Your task to perform on an android device: set an alarm Image 0: 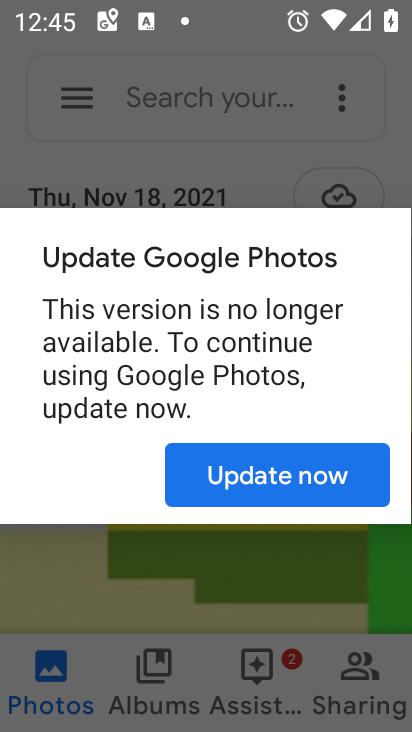
Step 0: press home button
Your task to perform on an android device: set an alarm Image 1: 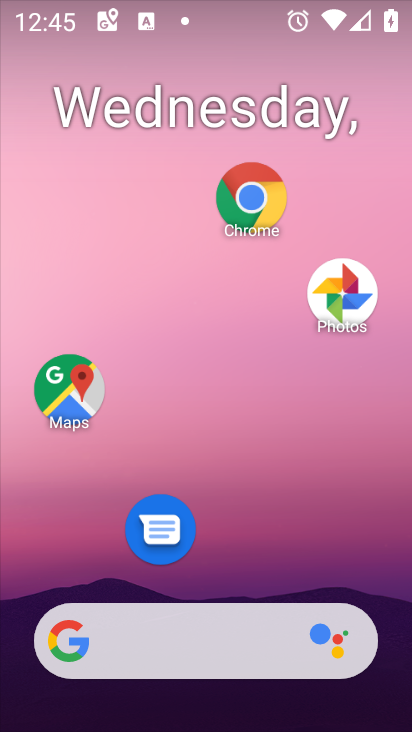
Step 1: drag from (239, 657) to (298, 4)
Your task to perform on an android device: set an alarm Image 2: 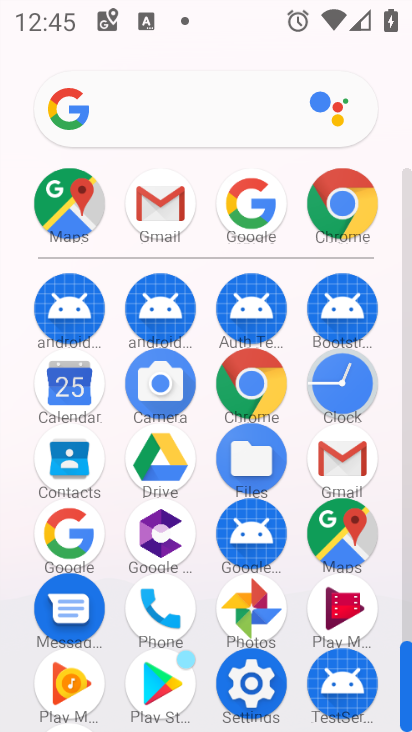
Step 2: click (361, 399)
Your task to perform on an android device: set an alarm Image 3: 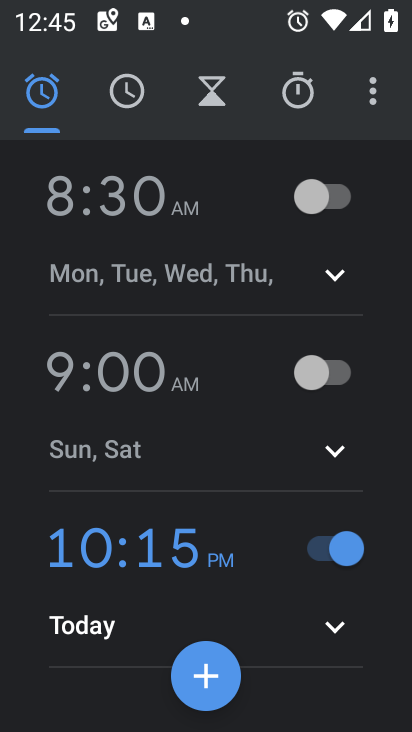
Step 3: click (199, 670)
Your task to perform on an android device: set an alarm Image 4: 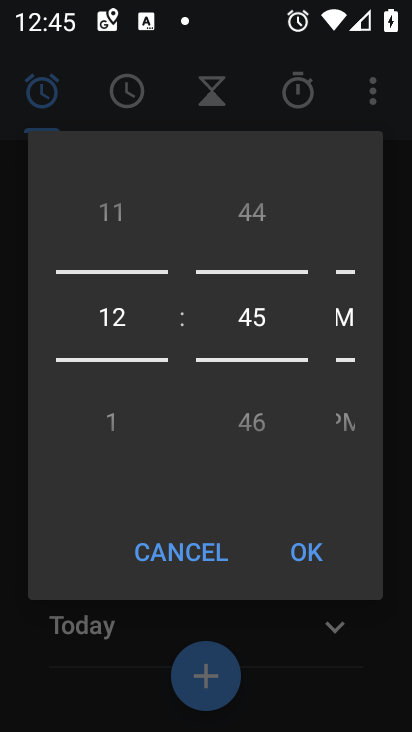
Step 4: click (313, 566)
Your task to perform on an android device: set an alarm Image 5: 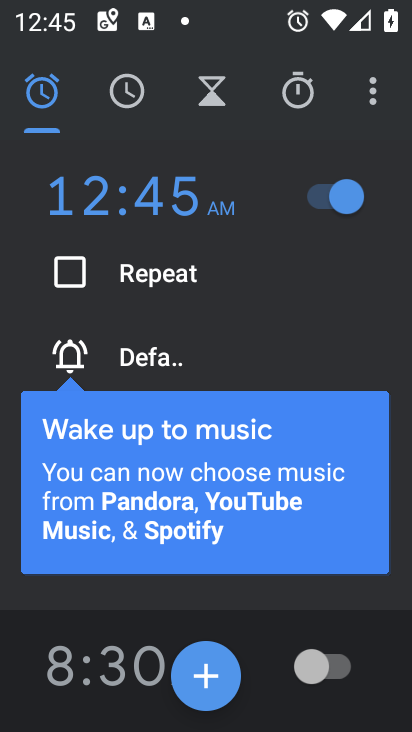
Step 5: task complete